Your task to perform on an android device: turn on data saver in the chrome app Image 0: 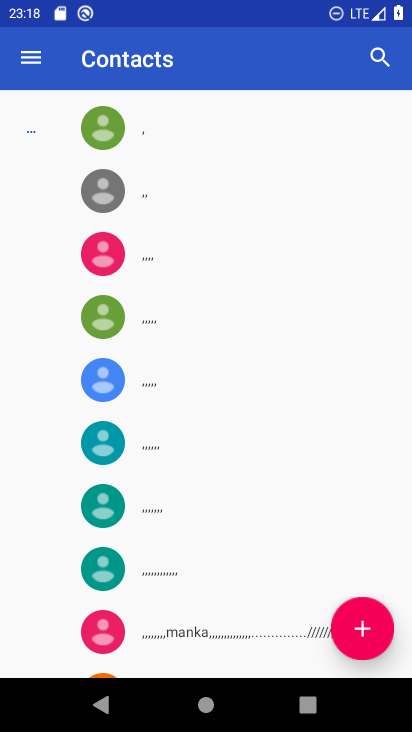
Step 0: press home button
Your task to perform on an android device: turn on data saver in the chrome app Image 1: 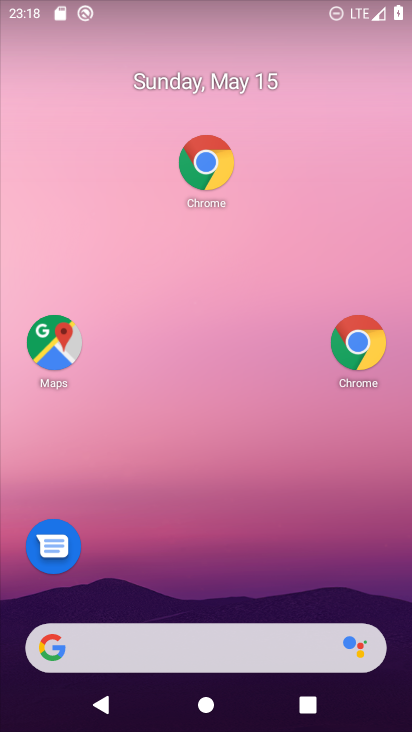
Step 1: drag from (214, 541) to (287, 211)
Your task to perform on an android device: turn on data saver in the chrome app Image 2: 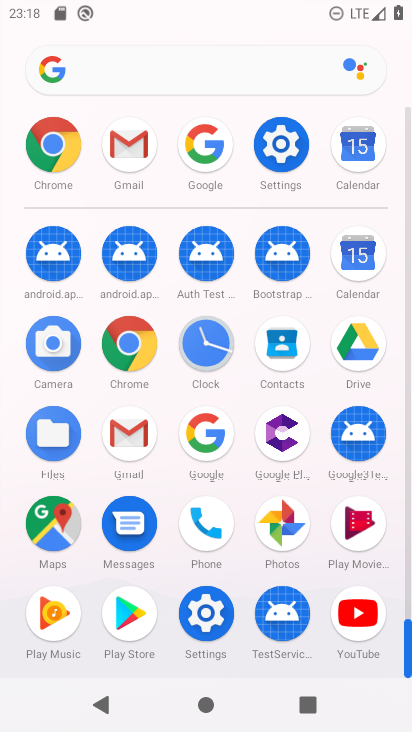
Step 2: click (37, 142)
Your task to perform on an android device: turn on data saver in the chrome app Image 3: 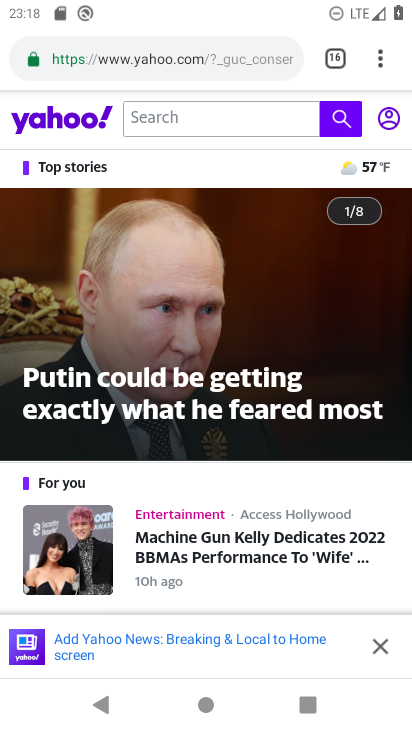
Step 3: click (367, 52)
Your task to perform on an android device: turn on data saver in the chrome app Image 4: 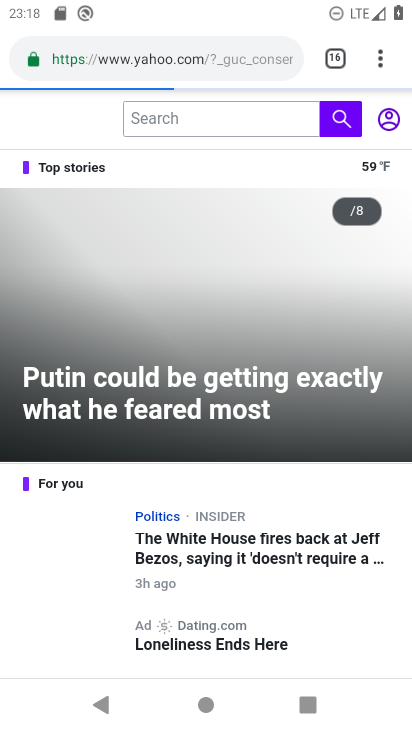
Step 4: click (370, 55)
Your task to perform on an android device: turn on data saver in the chrome app Image 5: 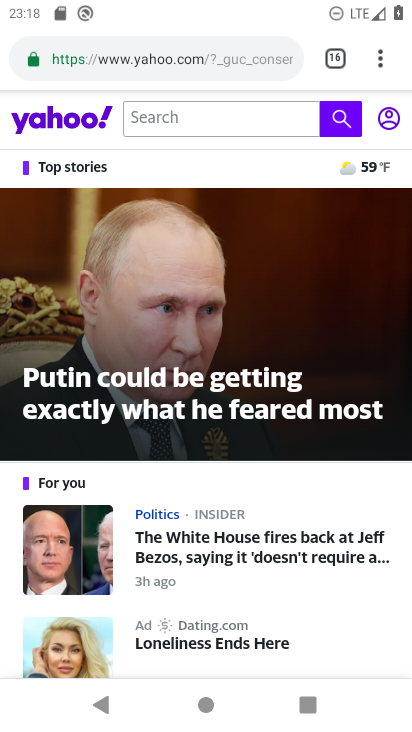
Step 5: click (370, 55)
Your task to perform on an android device: turn on data saver in the chrome app Image 6: 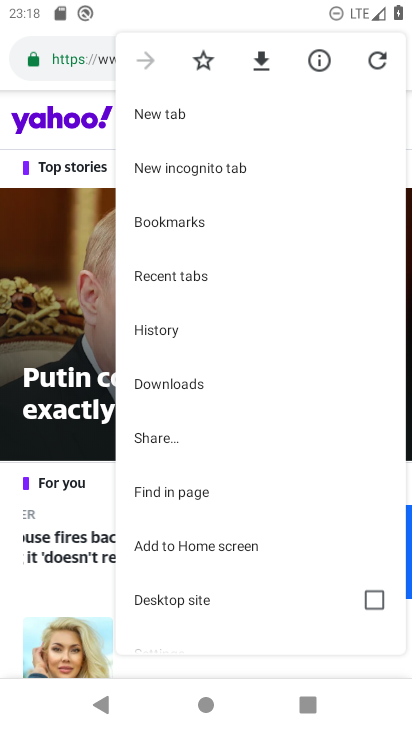
Step 6: drag from (207, 500) to (271, 186)
Your task to perform on an android device: turn on data saver in the chrome app Image 7: 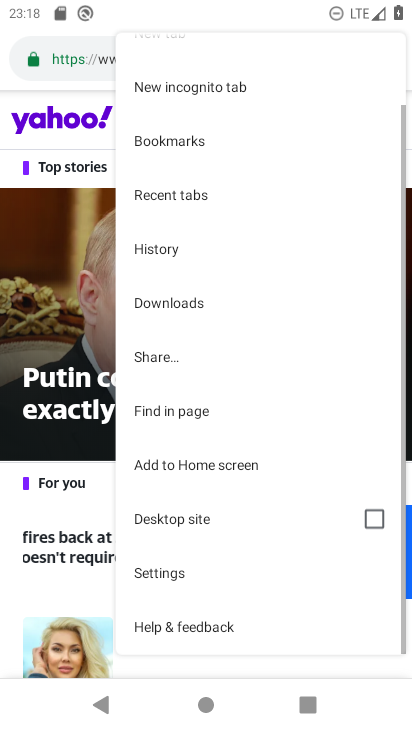
Step 7: click (147, 569)
Your task to perform on an android device: turn on data saver in the chrome app Image 8: 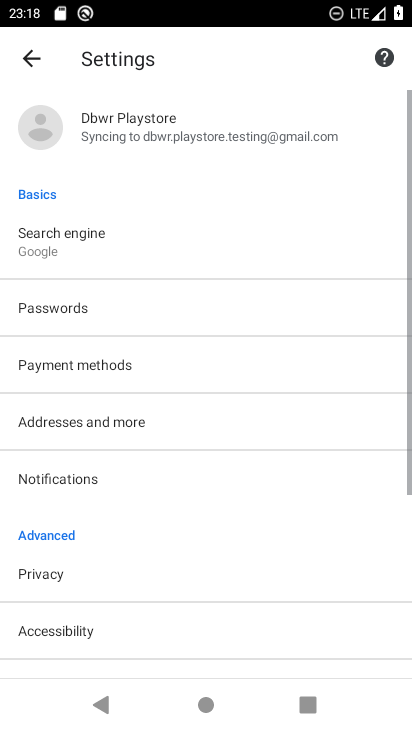
Step 8: drag from (153, 611) to (213, 303)
Your task to perform on an android device: turn on data saver in the chrome app Image 9: 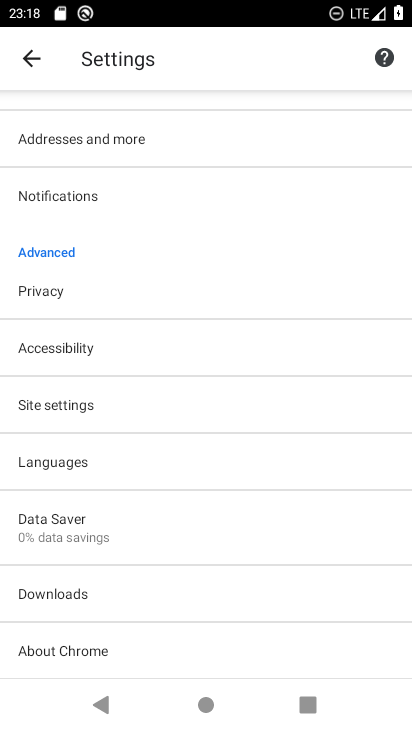
Step 9: click (84, 530)
Your task to perform on an android device: turn on data saver in the chrome app Image 10: 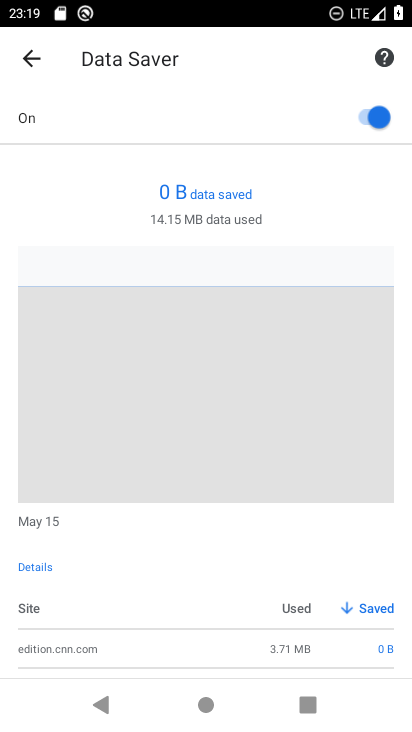
Step 10: task complete